Your task to perform on an android device: What's on my calendar today? Image 0: 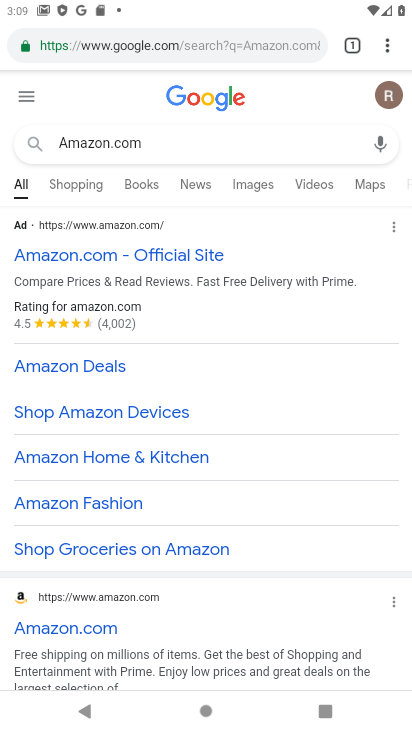
Step 0: press home button
Your task to perform on an android device: What's on my calendar today? Image 1: 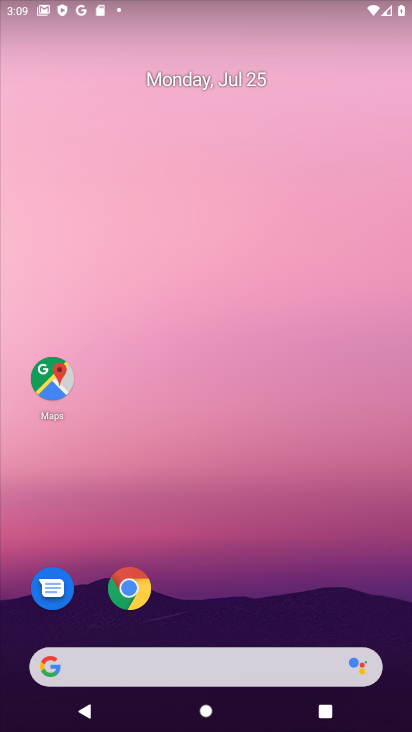
Step 1: drag from (370, 597) to (308, 90)
Your task to perform on an android device: What's on my calendar today? Image 2: 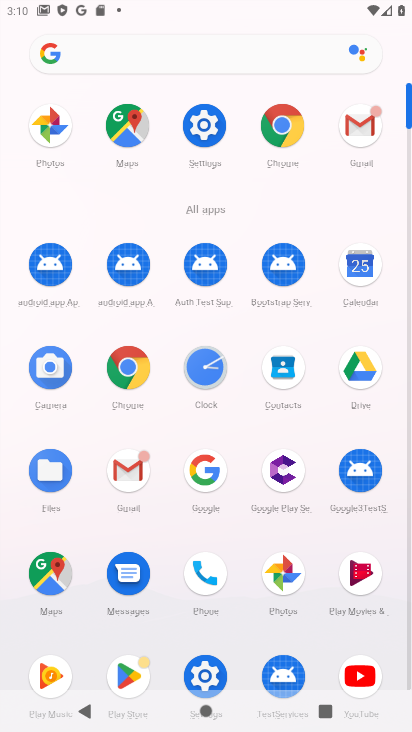
Step 2: click (360, 278)
Your task to perform on an android device: What's on my calendar today? Image 3: 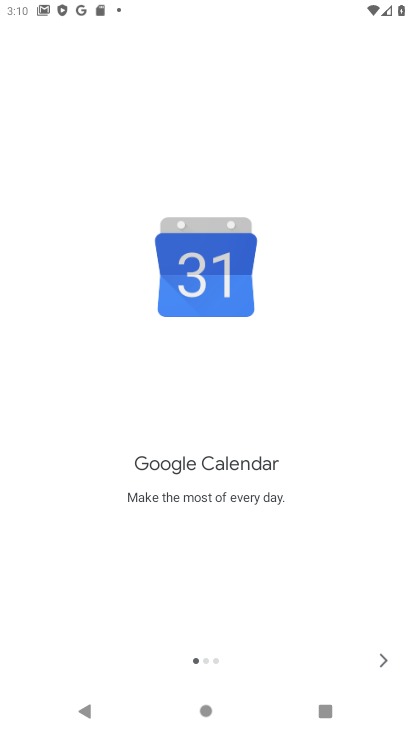
Step 3: click (382, 663)
Your task to perform on an android device: What's on my calendar today? Image 4: 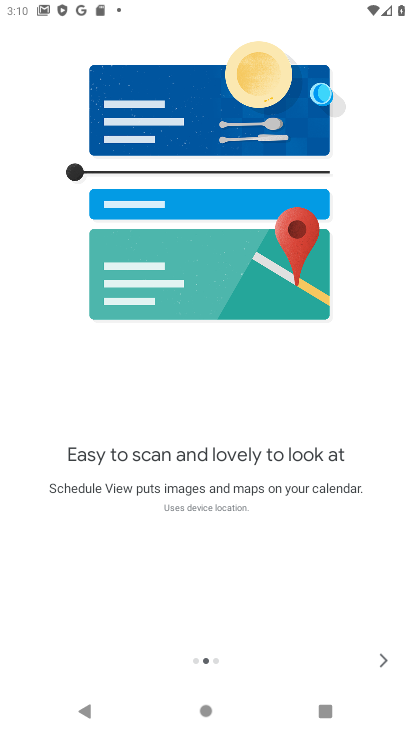
Step 4: click (382, 663)
Your task to perform on an android device: What's on my calendar today? Image 5: 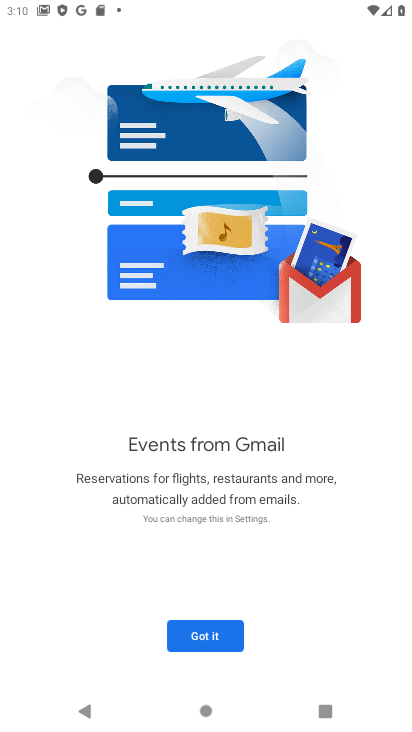
Step 5: click (226, 637)
Your task to perform on an android device: What's on my calendar today? Image 6: 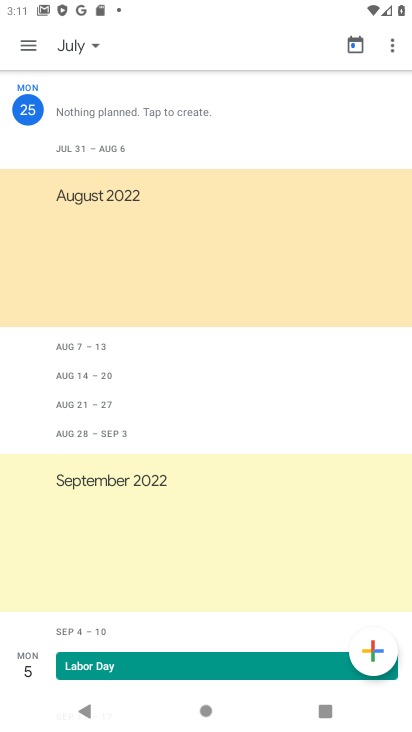
Step 6: press home button
Your task to perform on an android device: What's on my calendar today? Image 7: 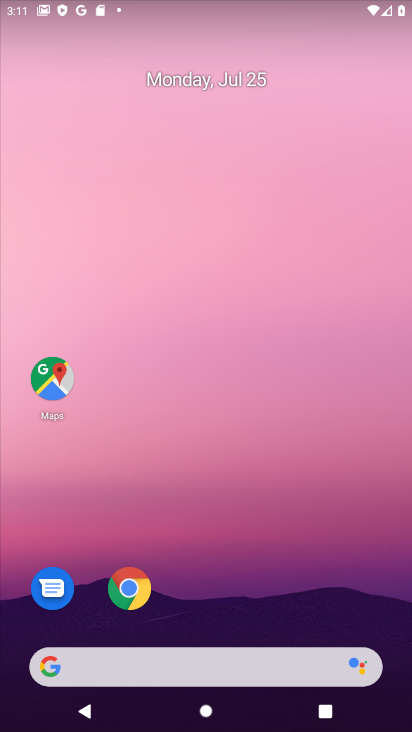
Step 7: drag from (398, 660) to (311, 180)
Your task to perform on an android device: What's on my calendar today? Image 8: 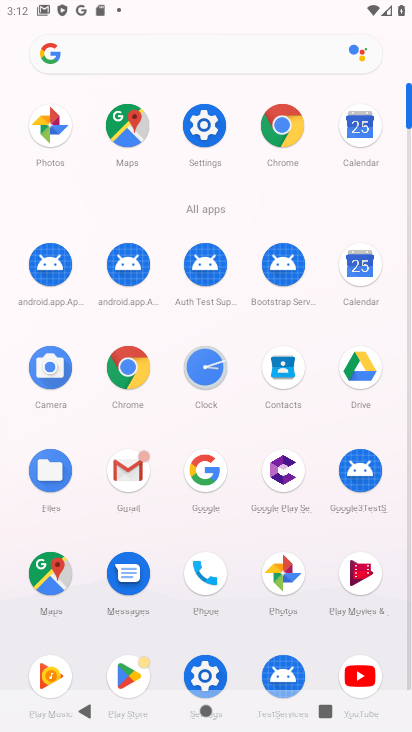
Step 8: click (363, 267)
Your task to perform on an android device: What's on my calendar today? Image 9: 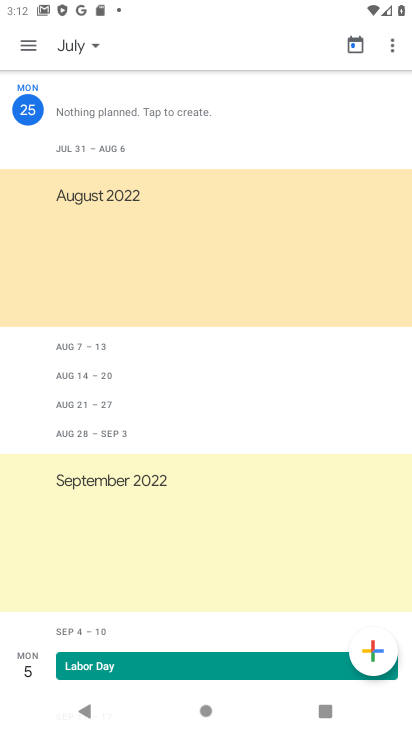
Step 9: task complete